Your task to perform on an android device: Show me recent news Image 0: 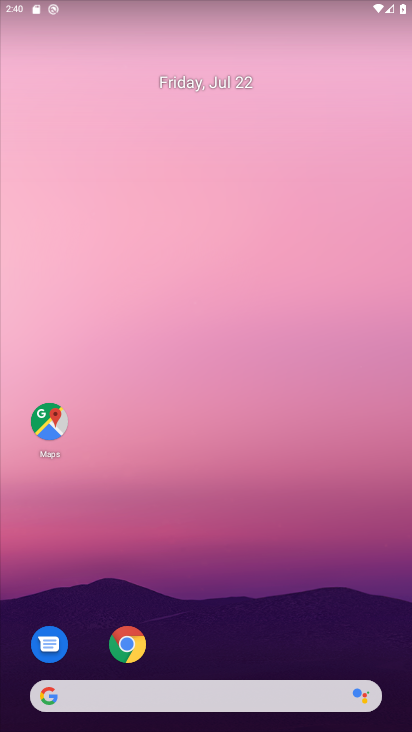
Step 0: drag from (275, 672) to (261, 194)
Your task to perform on an android device: Show me recent news Image 1: 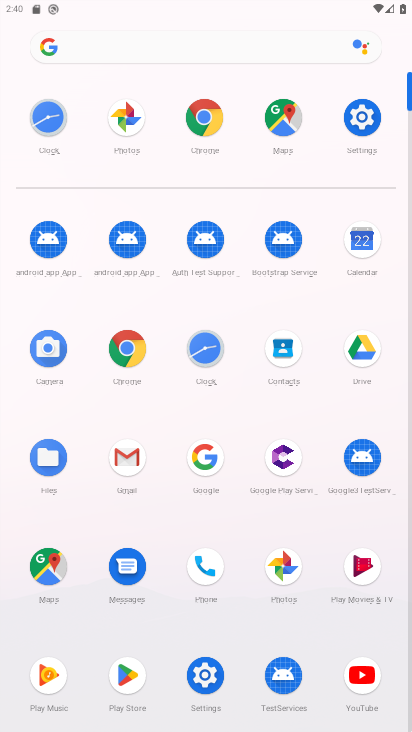
Step 1: click (197, 115)
Your task to perform on an android device: Show me recent news Image 2: 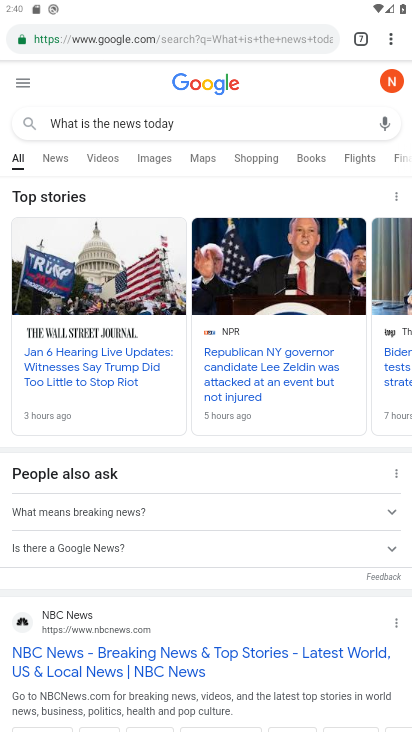
Step 2: click (387, 42)
Your task to perform on an android device: Show me recent news Image 3: 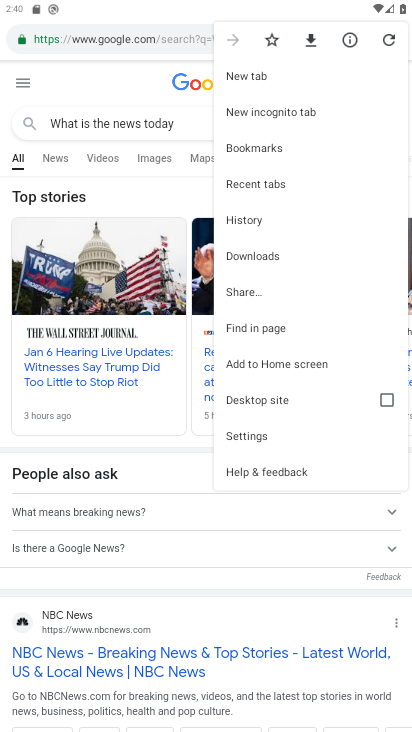
Step 3: click (255, 66)
Your task to perform on an android device: Show me recent news Image 4: 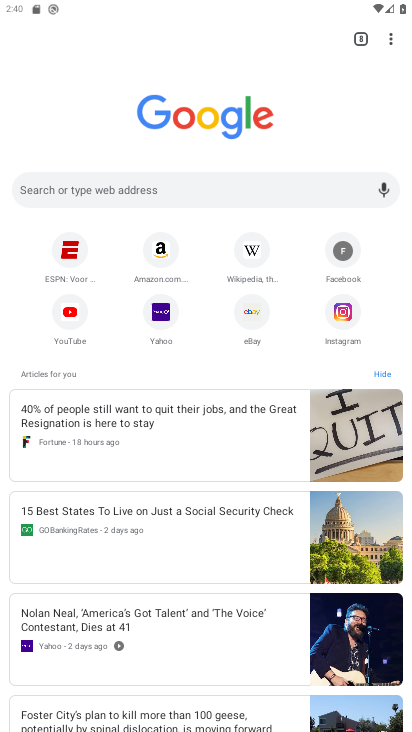
Step 4: click (290, 176)
Your task to perform on an android device: Show me recent news Image 5: 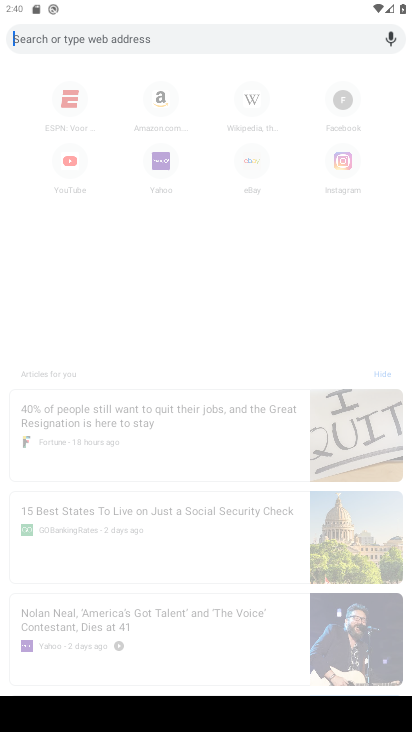
Step 5: type "Show me recent news "
Your task to perform on an android device: Show me recent news Image 6: 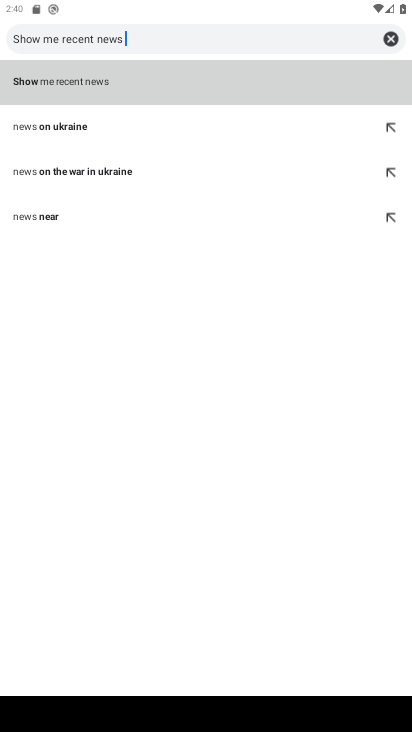
Step 6: click (120, 75)
Your task to perform on an android device: Show me recent news Image 7: 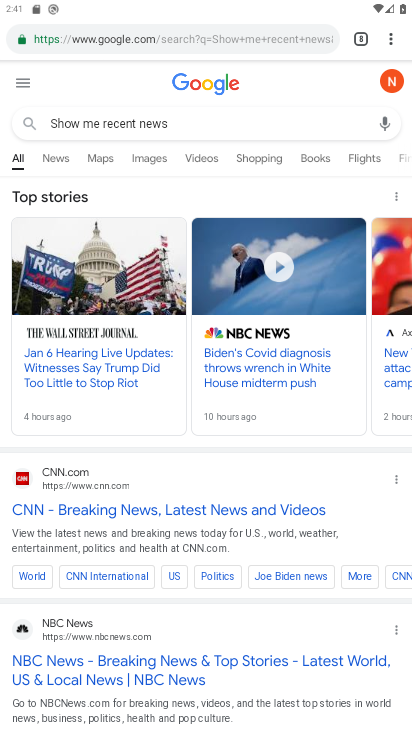
Step 7: task complete